Your task to perform on an android device: allow cookies in the chrome app Image 0: 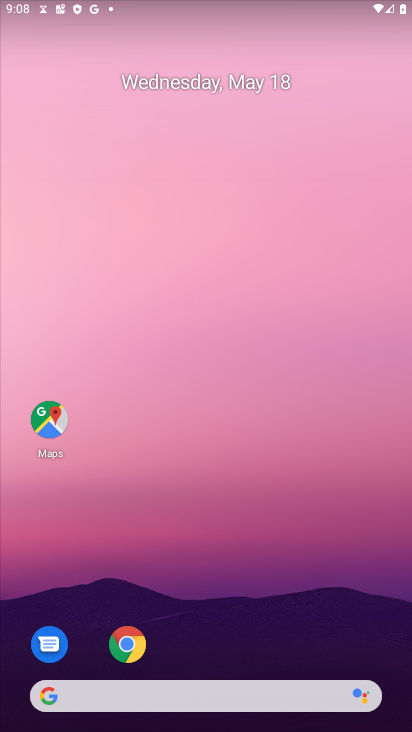
Step 0: click (129, 643)
Your task to perform on an android device: allow cookies in the chrome app Image 1: 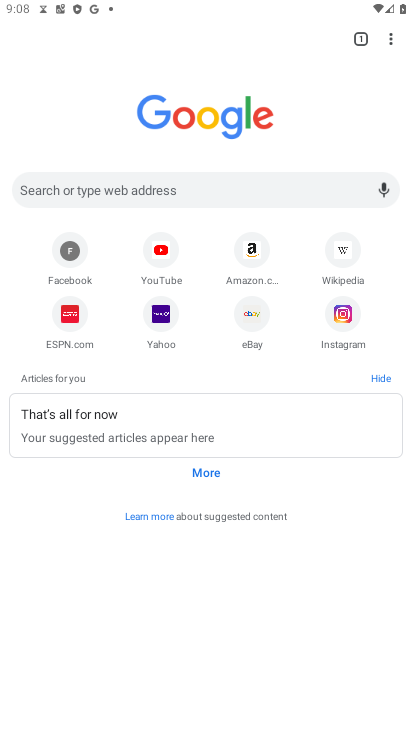
Step 1: click (389, 39)
Your task to perform on an android device: allow cookies in the chrome app Image 2: 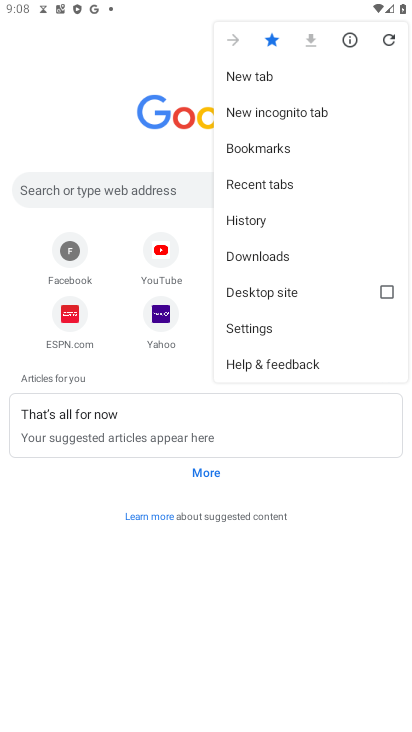
Step 2: click (268, 324)
Your task to perform on an android device: allow cookies in the chrome app Image 3: 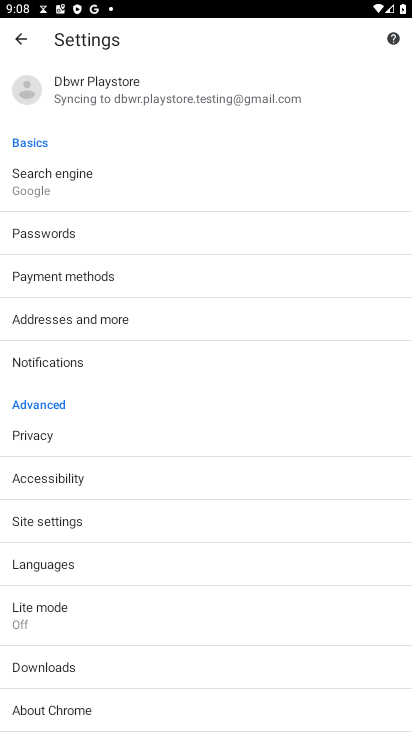
Step 3: click (40, 518)
Your task to perform on an android device: allow cookies in the chrome app Image 4: 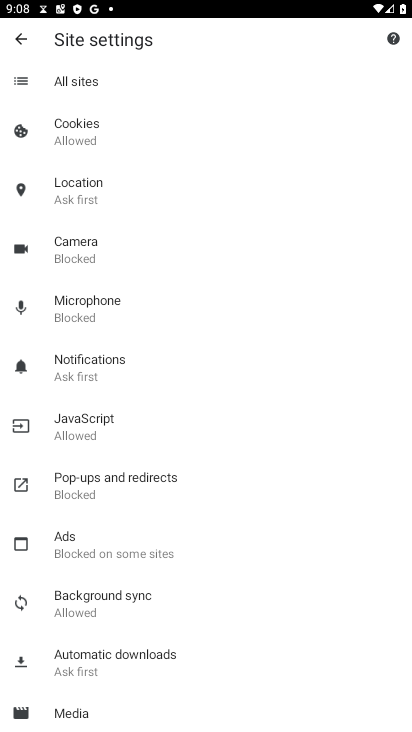
Step 4: click (89, 146)
Your task to perform on an android device: allow cookies in the chrome app Image 5: 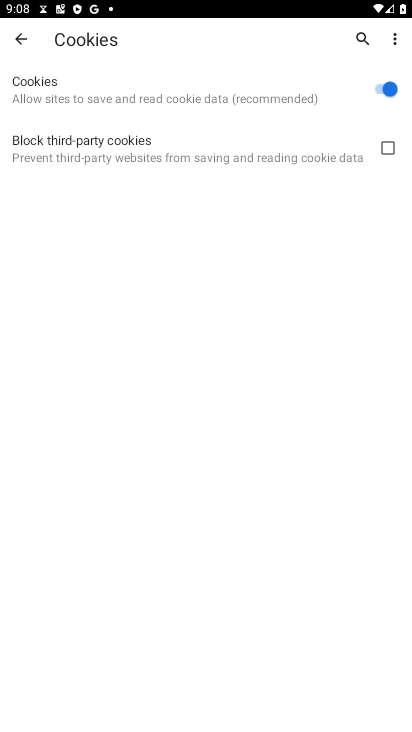
Step 5: click (388, 148)
Your task to perform on an android device: allow cookies in the chrome app Image 6: 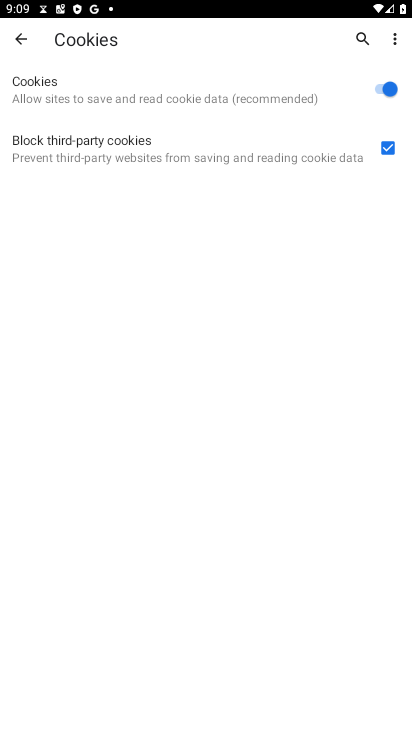
Step 6: task complete